Your task to perform on an android device: clear history in the chrome app Image 0: 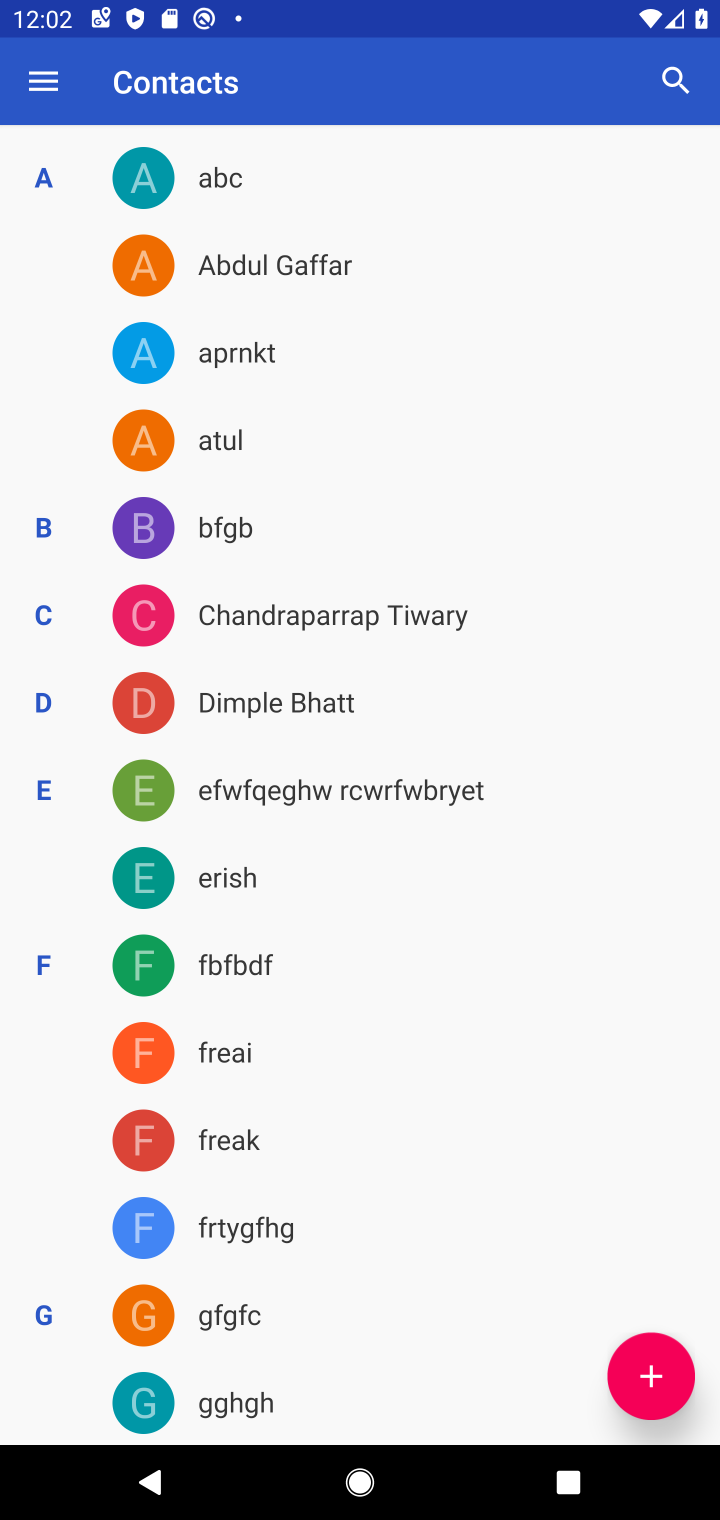
Step 0: press back button
Your task to perform on an android device: clear history in the chrome app Image 1: 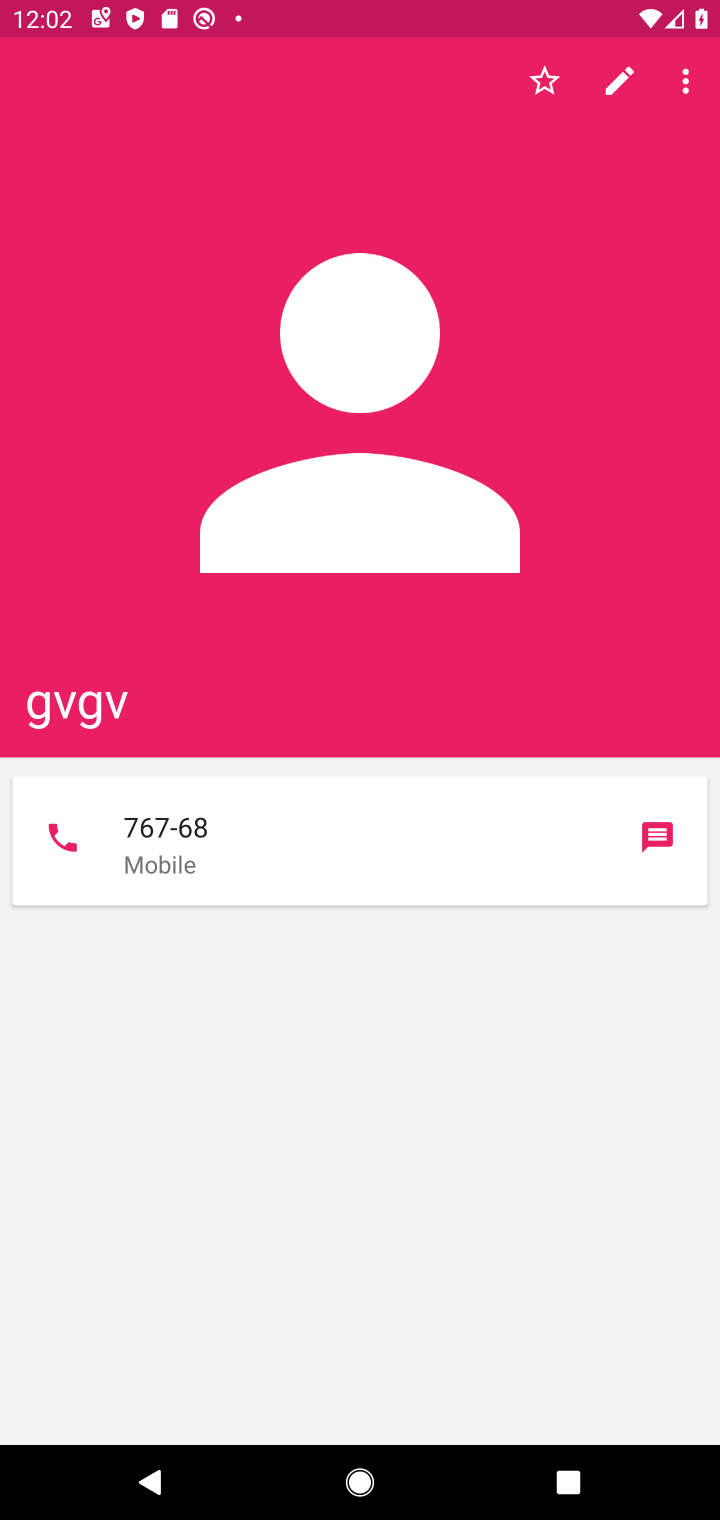
Step 1: press back button
Your task to perform on an android device: clear history in the chrome app Image 2: 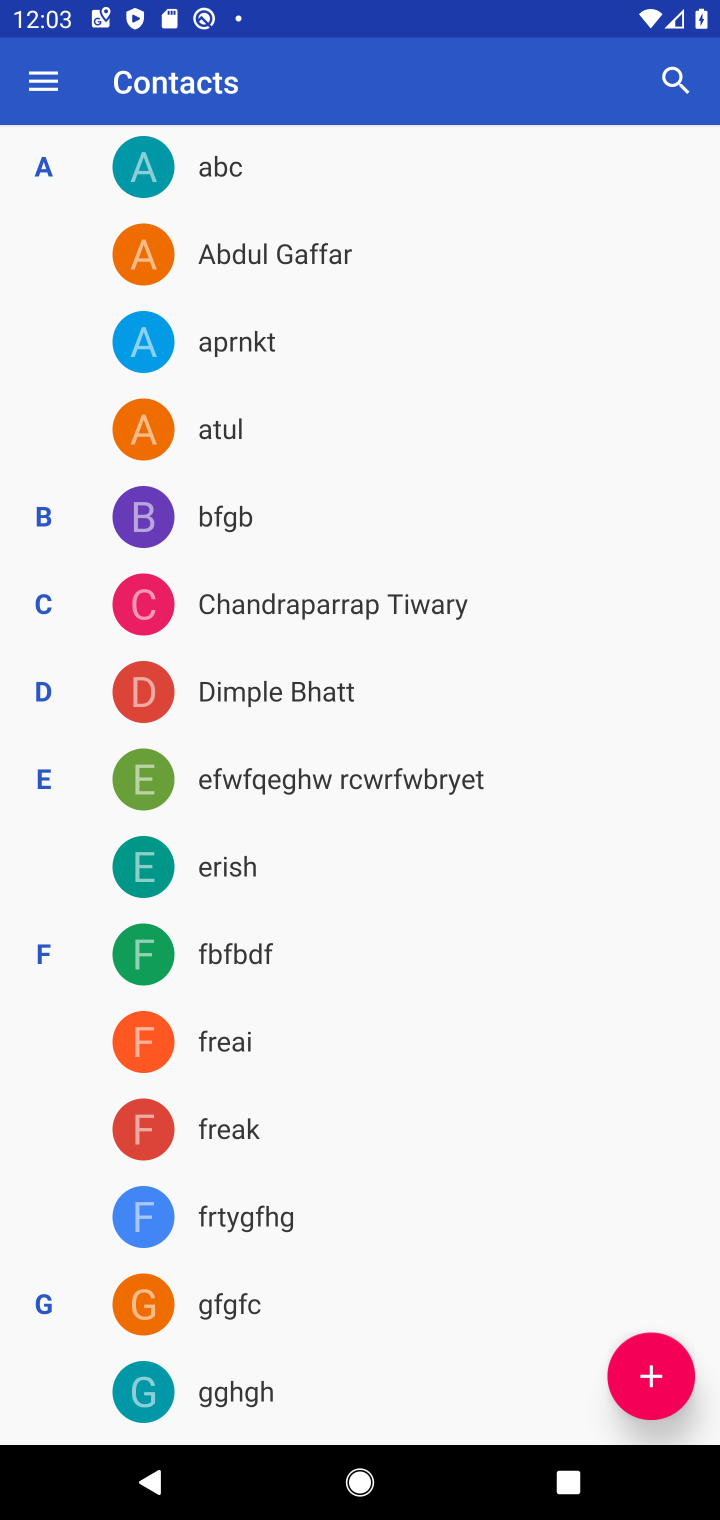
Step 2: press back button
Your task to perform on an android device: clear history in the chrome app Image 3: 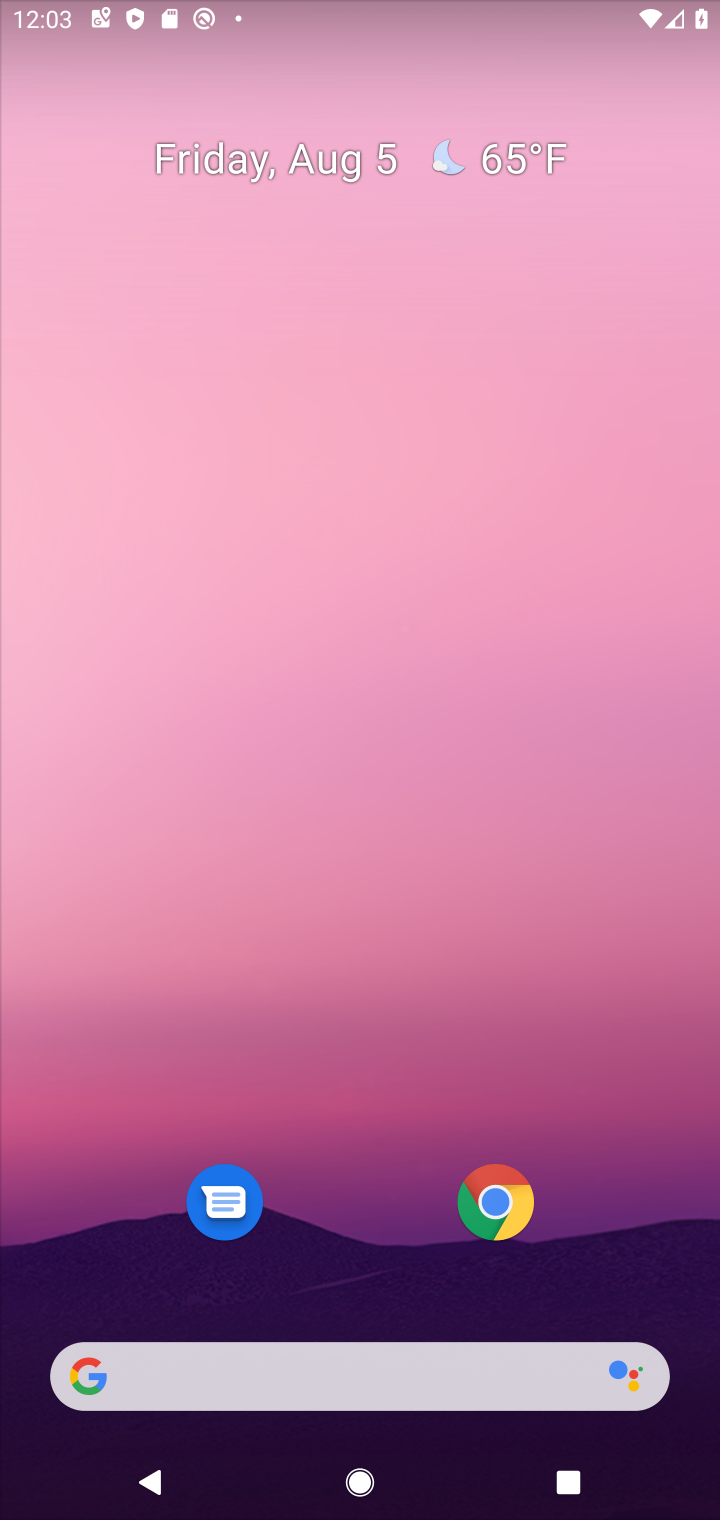
Step 3: click (502, 1216)
Your task to perform on an android device: clear history in the chrome app Image 4: 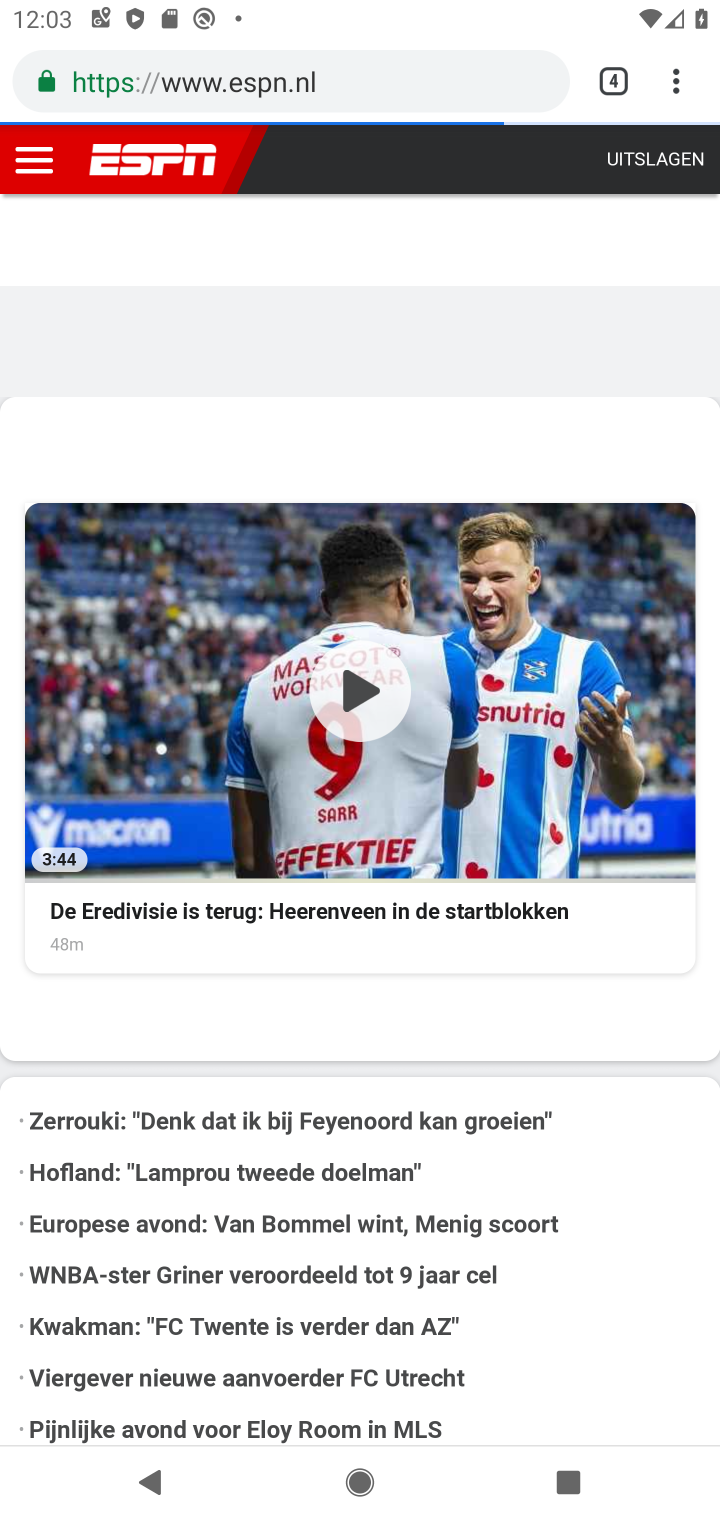
Step 4: drag from (683, 79) to (420, 526)
Your task to perform on an android device: clear history in the chrome app Image 5: 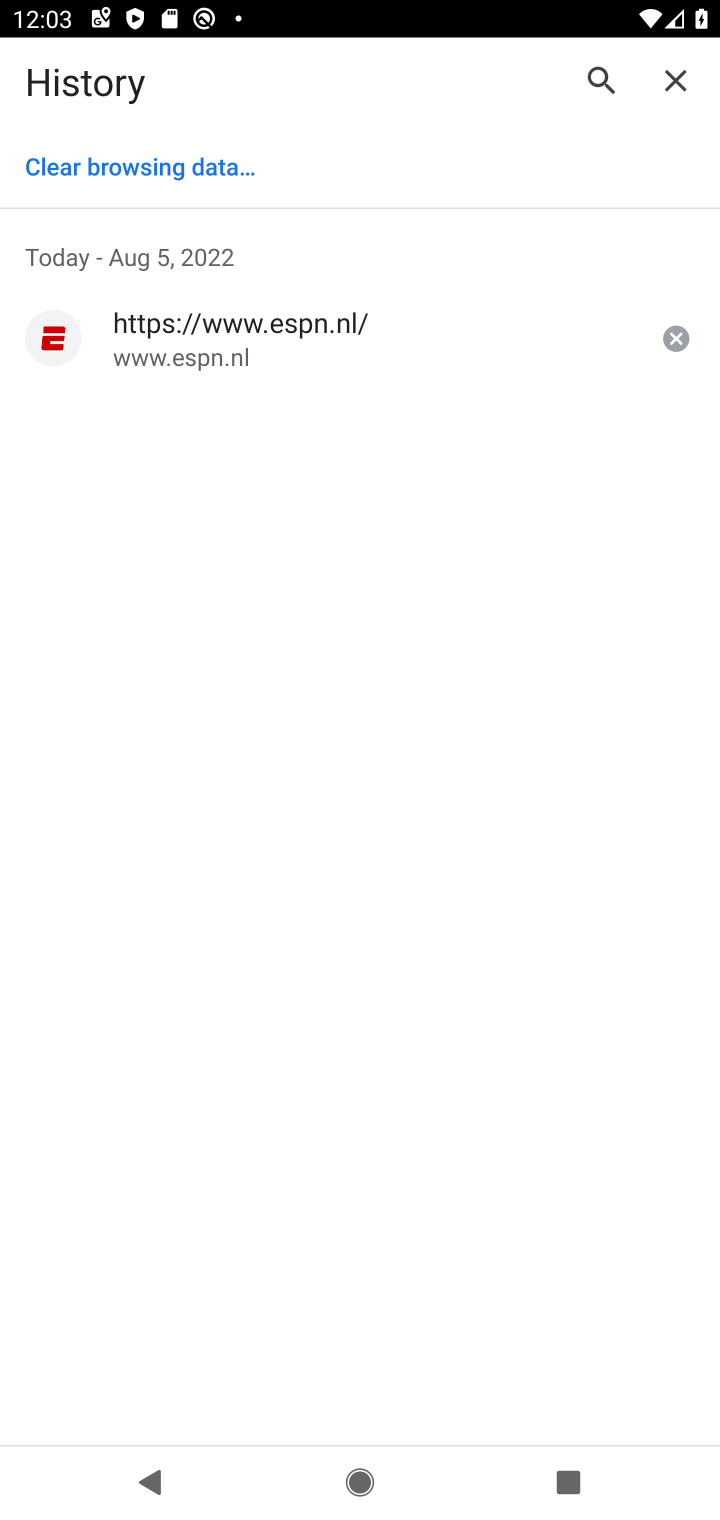
Step 5: click (165, 154)
Your task to perform on an android device: clear history in the chrome app Image 6: 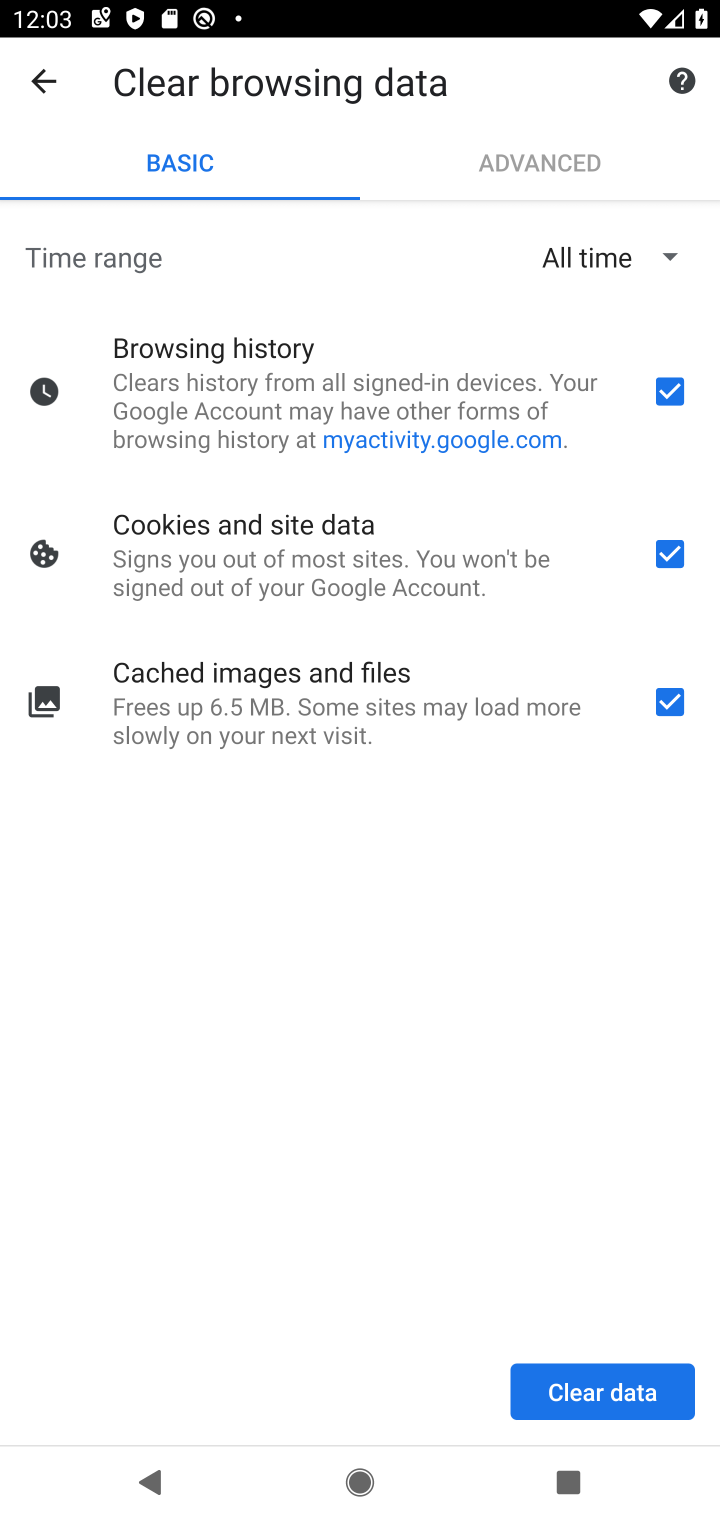
Step 6: click (663, 1381)
Your task to perform on an android device: clear history in the chrome app Image 7: 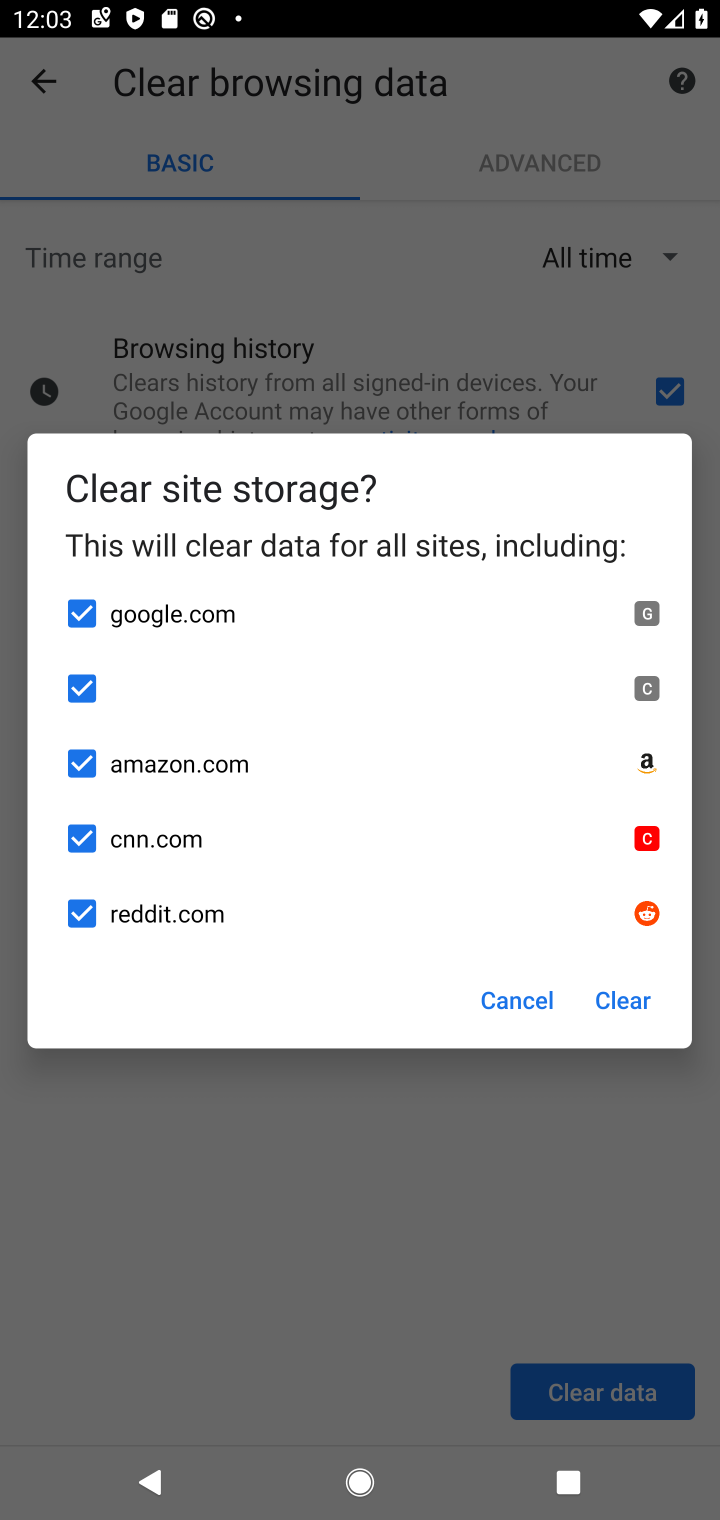
Step 7: click (620, 989)
Your task to perform on an android device: clear history in the chrome app Image 8: 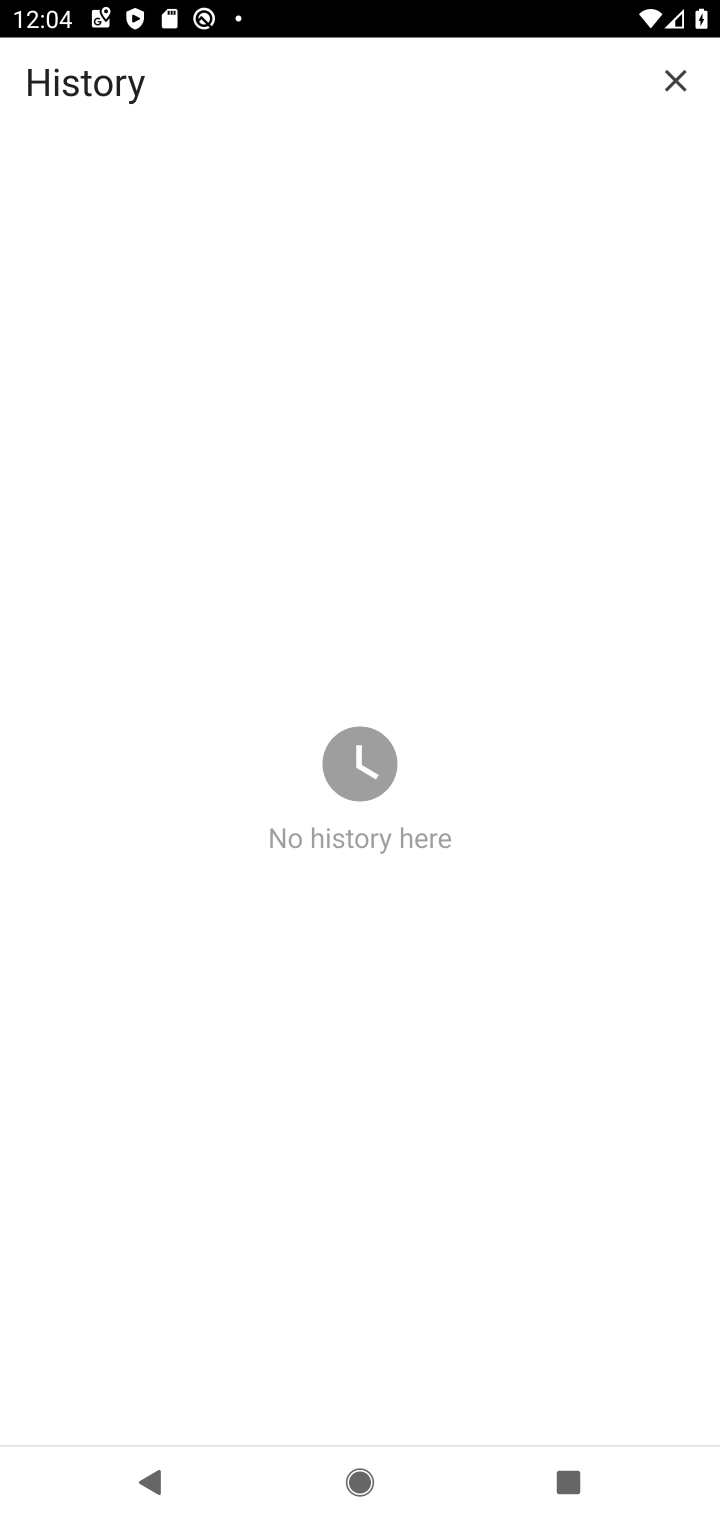
Step 8: task complete